Your task to perform on an android device: Find coffee shops on Maps Image 0: 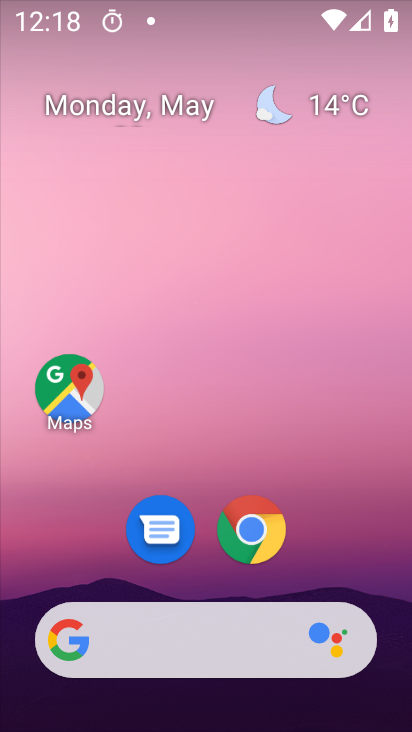
Step 0: drag from (401, 569) to (406, 240)
Your task to perform on an android device: Find coffee shops on Maps Image 1: 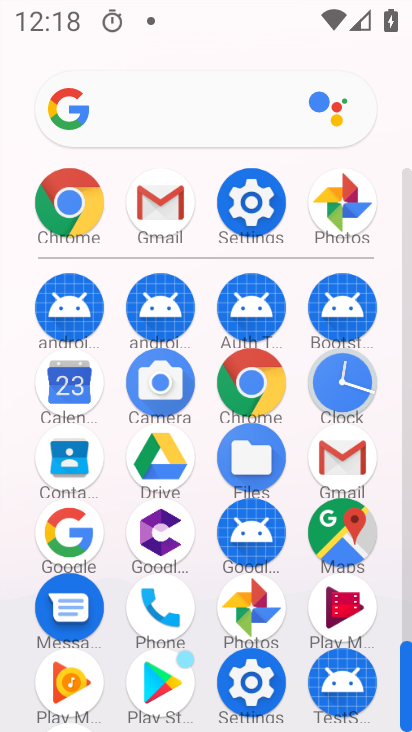
Step 1: click (358, 535)
Your task to perform on an android device: Find coffee shops on Maps Image 2: 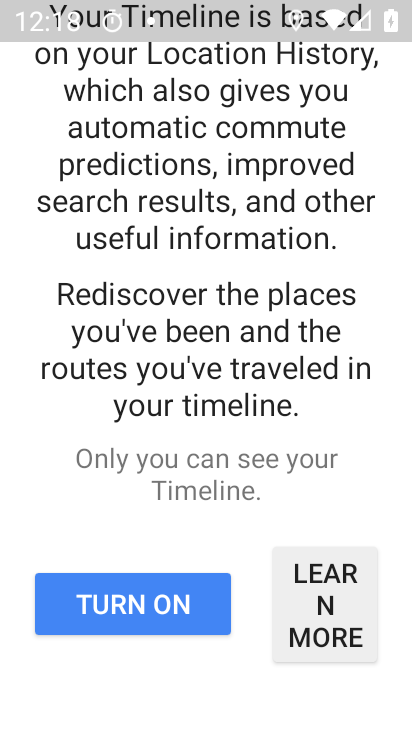
Step 2: drag from (253, 655) to (255, 488)
Your task to perform on an android device: Find coffee shops on Maps Image 3: 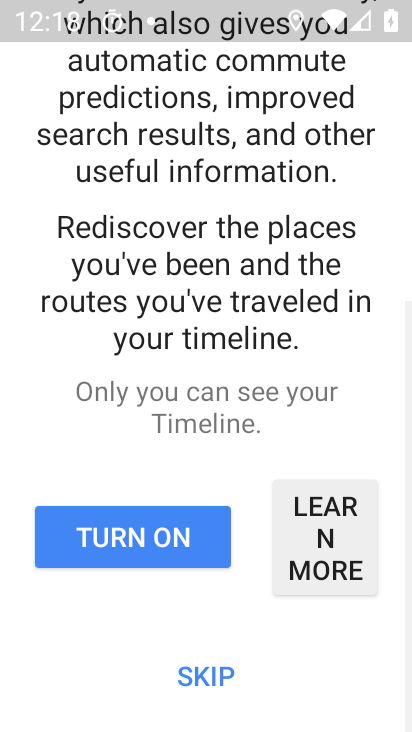
Step 3: click (223, 680)
Your task to perform on an android device: Find coffee shops on Maps Image 4: 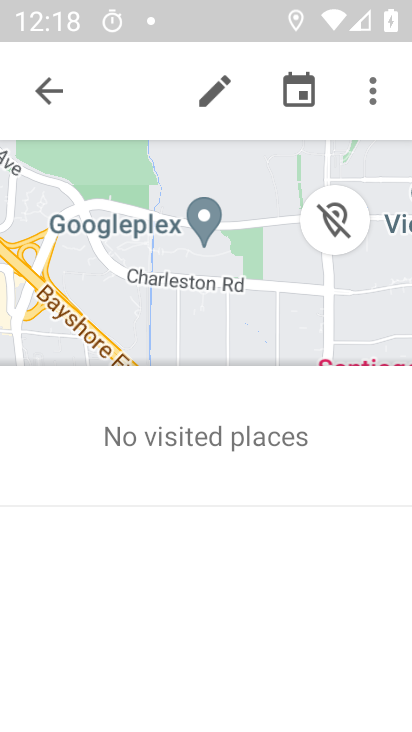
Step 4: click (50, 91)
Your task to perform on an android device: Find coffee shops on Maps Image 5: 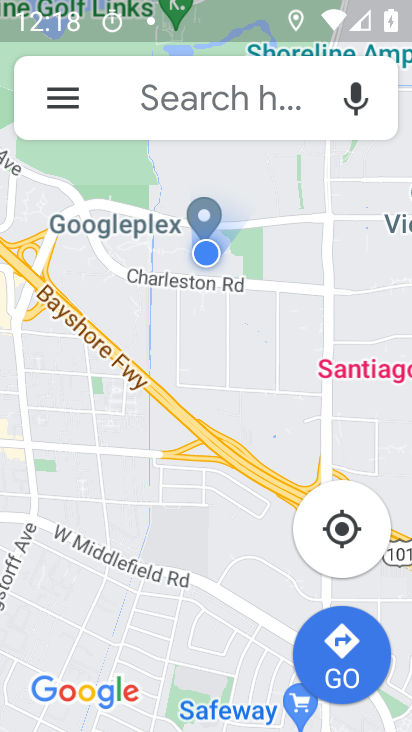
Step 5: click (157, 109)
Your task to perform on an android device: Find coffee shops on Maps Image 6: 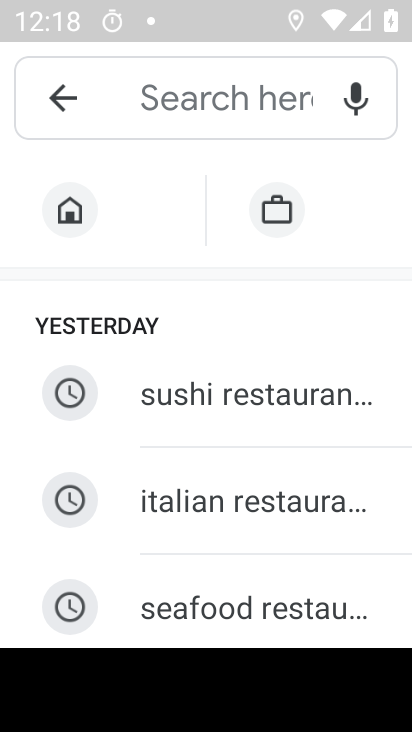
Step 6: type "coffee"
Your task to perform on an android device: Find coffee shops on Maps Image 7: 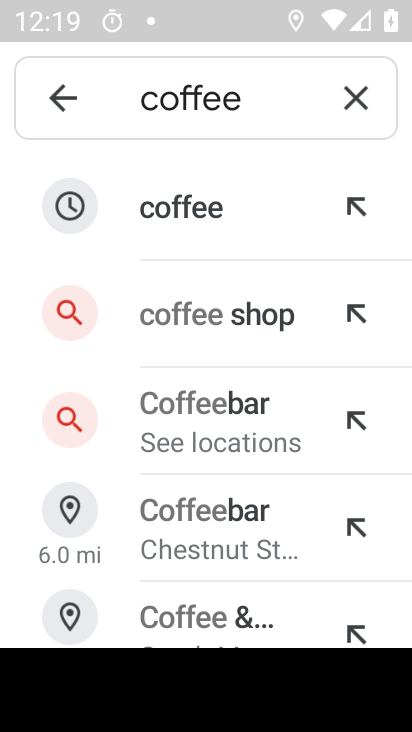
Step 7: click (249, 224)
Your task to perform on an android device: Find coffee shops on Maps Image 8: 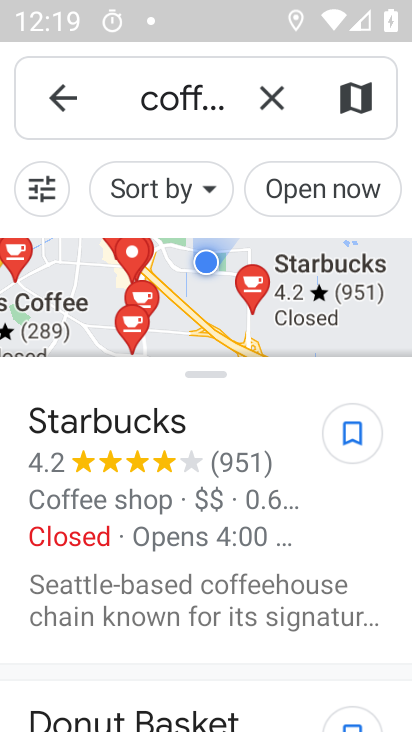
Step 8: task complete